Your task to perform on an android device: read, delete, or share a saved page in the chrome app Image 0: 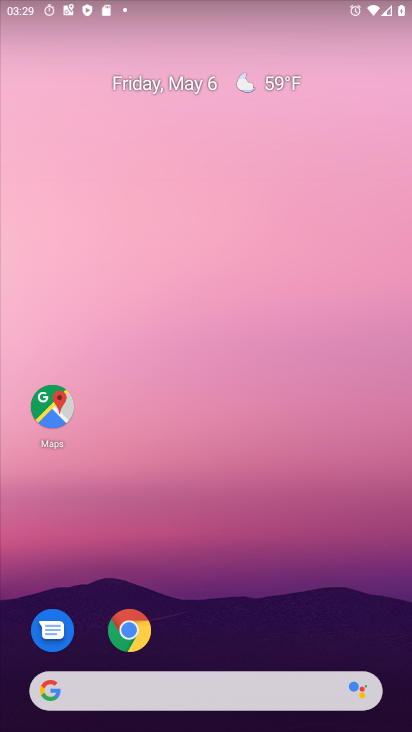
Step 0: click (231, 631)
Your task to perform on an android device: read, delete, or share a saved page in the chrome app Image 1: 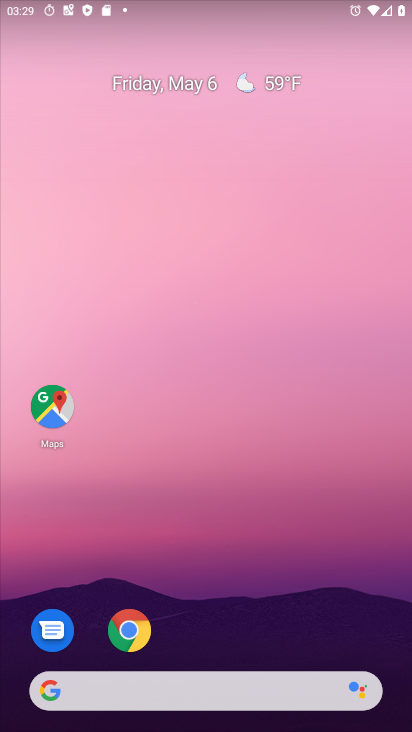
Step 1: click (139, 622)
Your task to perform on an android device: read, delete, or share a saved page in the chrome app Image 2: 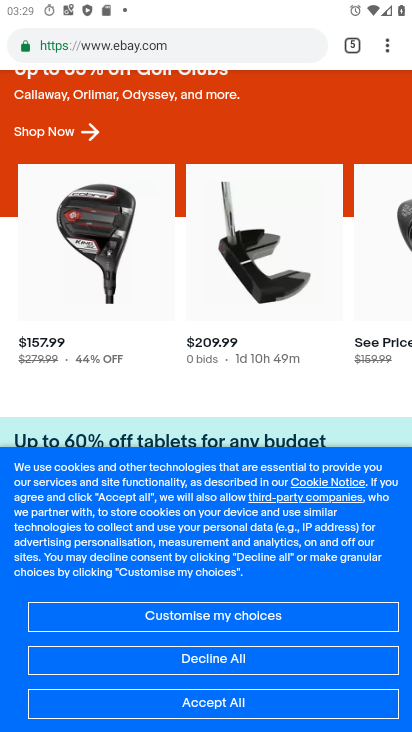
Step 2: drag from (383, 44) to (266, 292)
Your task to perform on an android device: read, delete, or share a saved page in the chrome app Image 3: 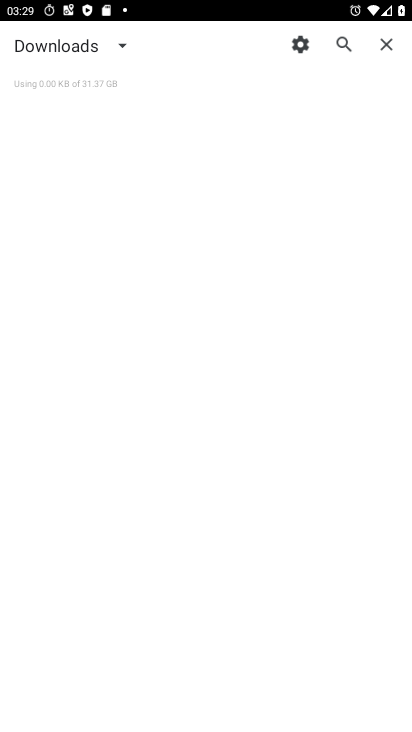
Step 3: click (123, 45)
Your task to perform on an android device: read, delete, or share a saved page in the chrome app Image 4: 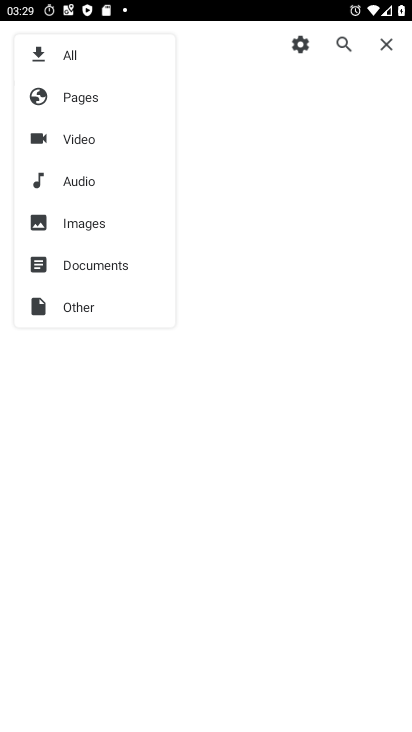
Step 4: click (90, 103)
Your task to perform on an android device: read, delete, or share a saved page in the chrome app Image 5: 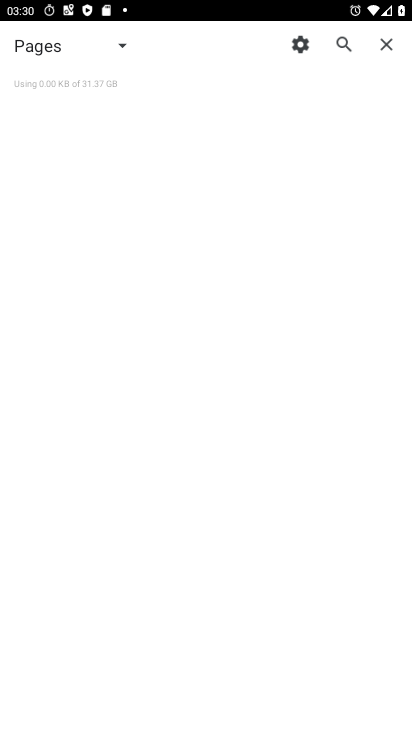
Step 5: task complete